Your task to perform on an android device: Go to Amazon Image 0: 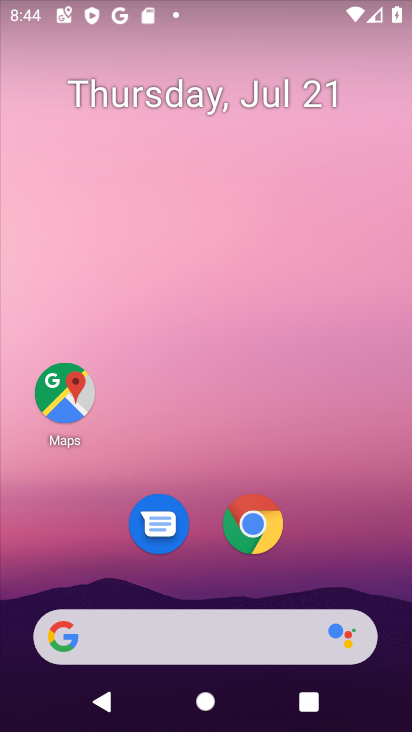
Step 0: press home button
Your task to perform on an android device: Go to Amazon Image 1: 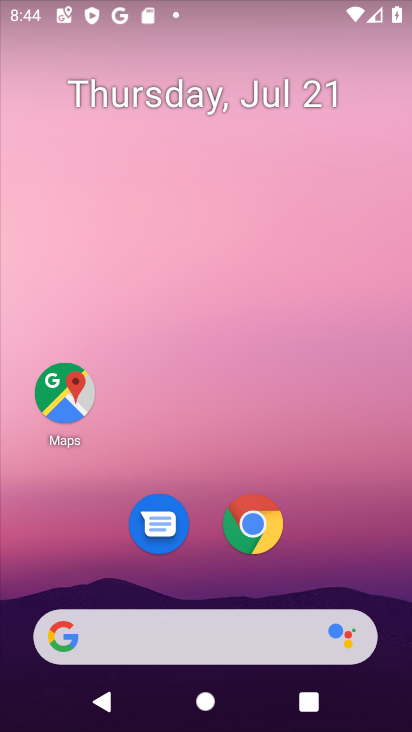
Step 1: click (252, 539)
Your task to perform on an android device: Go to Amazon Image 2: 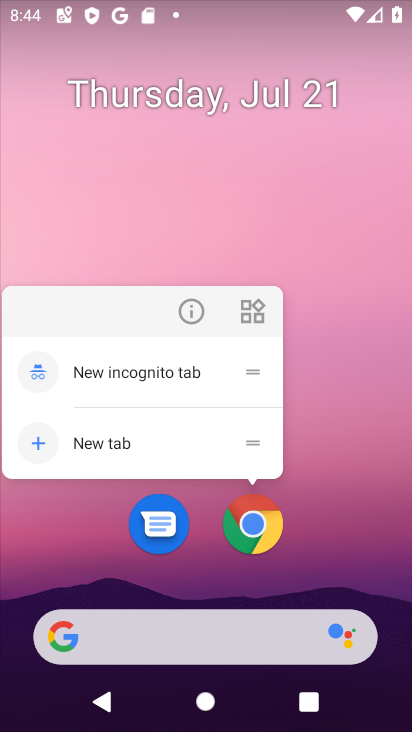
Step 2: click (259, 524)
Your task to perform on an android device: Go to Amazon Image 3: 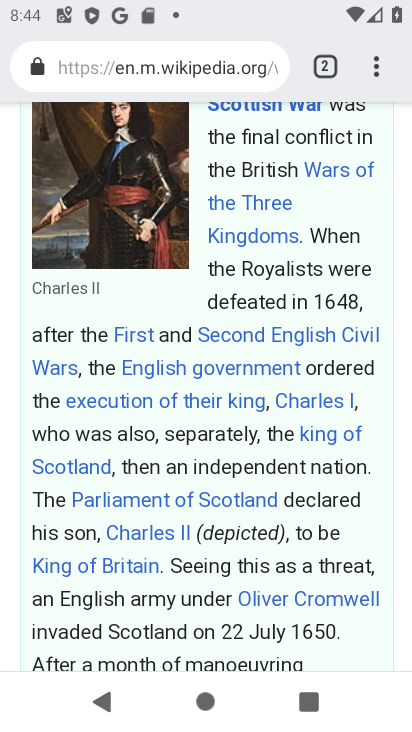
Step 3: drag from (311, 166) to (242, 604)
Your task to perform on an android device: Go to Amazon Image 4: 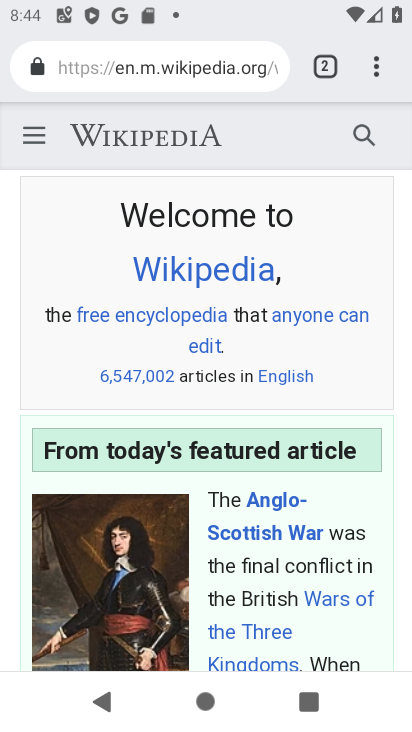
Step 4: drag from (376, 71) to (175, 138)
Your task to perform on an android device: Go to Amazon Image 5: 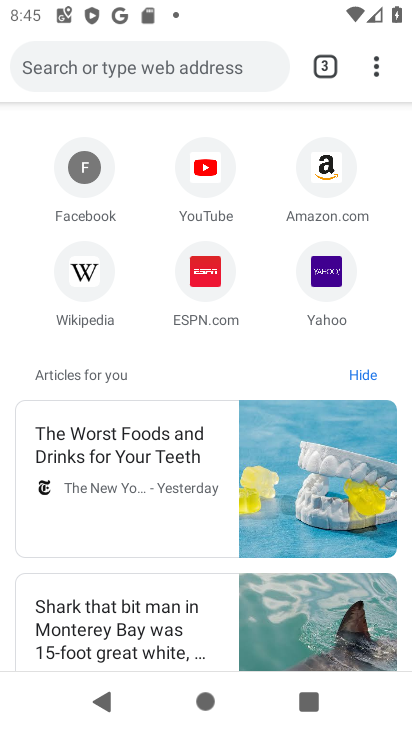
Step 5: click (318, 188)
Your task to perform on an android device: Go to Amazon Image 6: 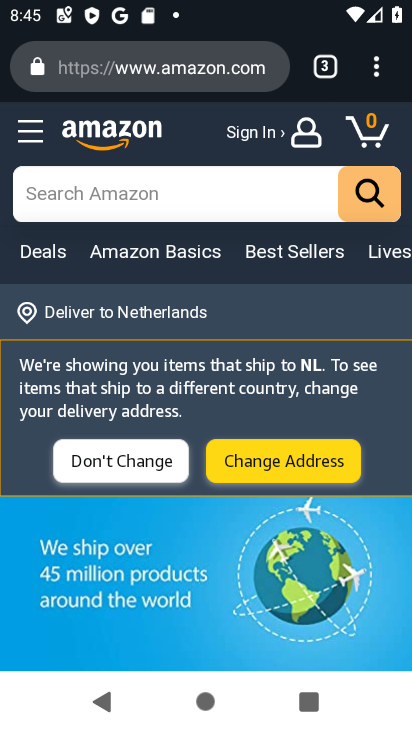
Step 6: task complete